Your task to perform on an android device: What's the weather going to be this weekend? Image 0: 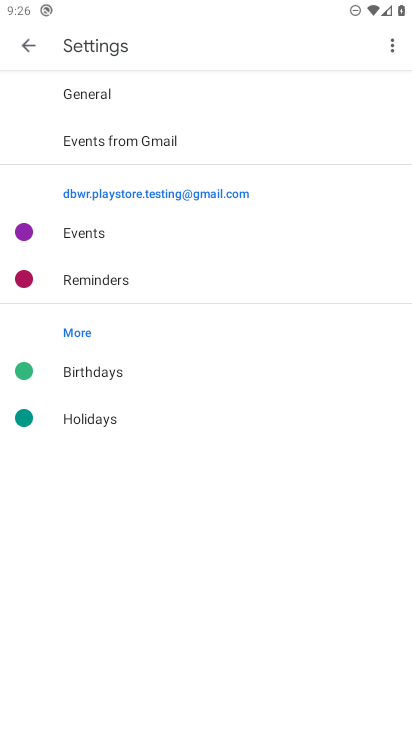
Step 0: press home button
Your task to perform on an android device: What's the weather going to be this weekend? Image 1: 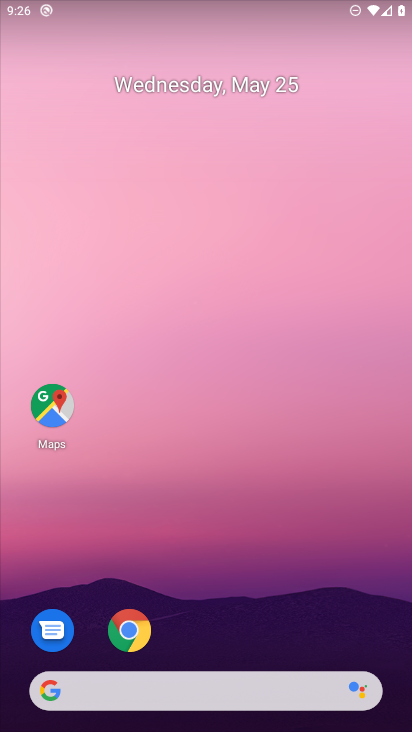
Step 1: drag from (211, 642) to (206, 425)
Your task to perform on an android device: What's the weather going to be this weekend? Image 2: 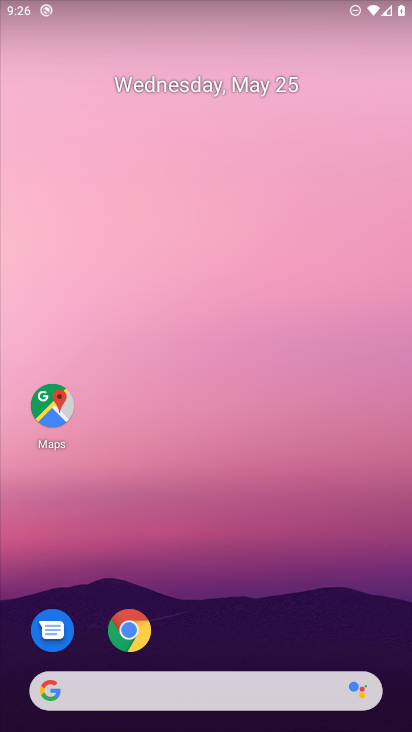
Step 2: drag from (186, 653) to (186, 452)
Your task to perform on an android device: What's the weather going to be this weekend? Image 3: 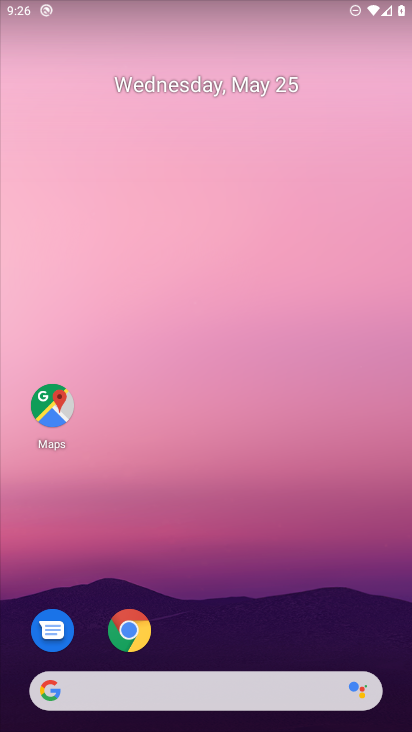
Step 3: drag from (180, 674) to (190, 342)
Your task to perform on an android device: What's the weather going to be this weekend? Image 4: 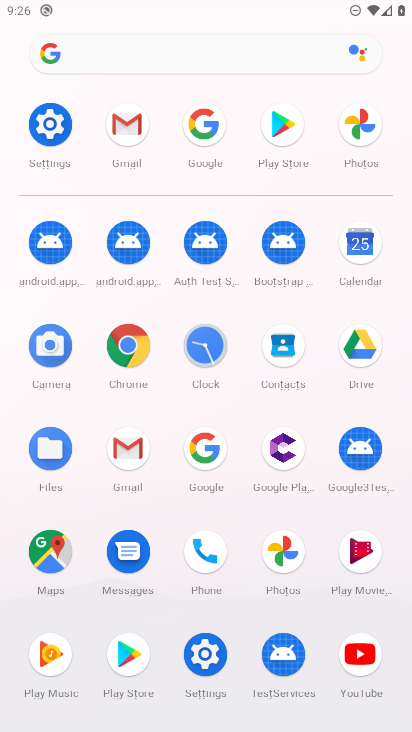
Step 4: click (213, 452)
Your task to perform on an android device: What's the weather going to be this weekend? Image 5: 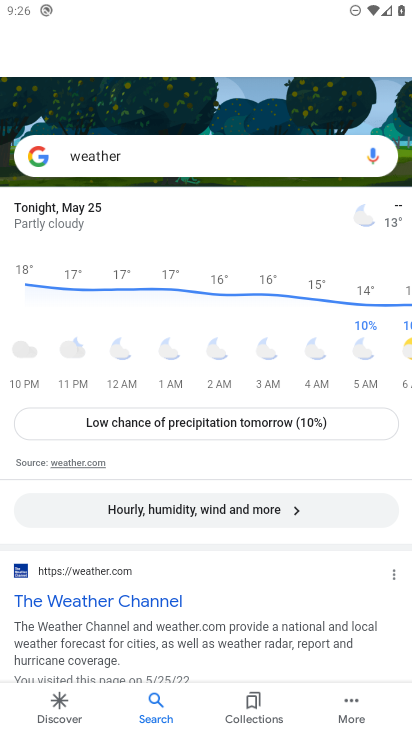
Step 5: click (128, 155)
Your task to perform on an android device: What's the weather going to be this weekend? Image 6: 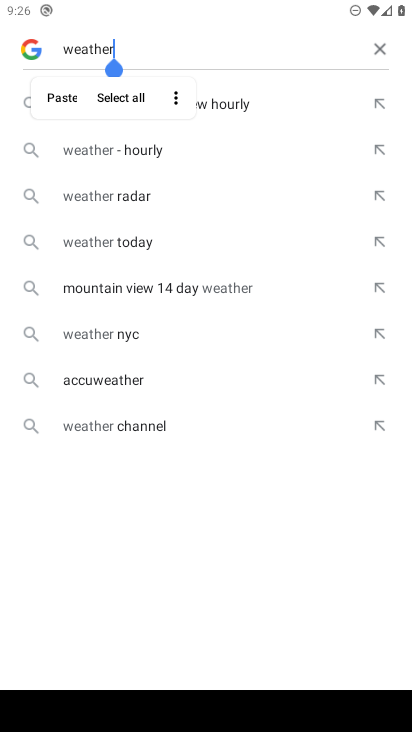
Step 6: click (371, 47)
Your task to perform on an android device: What's the weather going to be this weekend? Image 7: 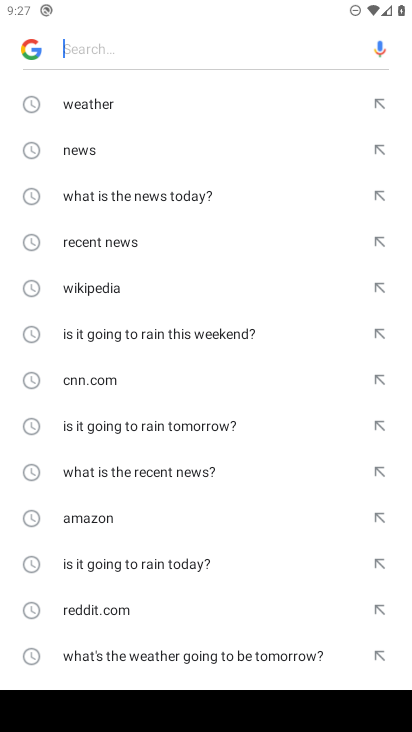
Step 7: drag from (174, 673) to (178, 372)
Your task to perform on an android device: What's the weather going to be this weekend? Image 8: 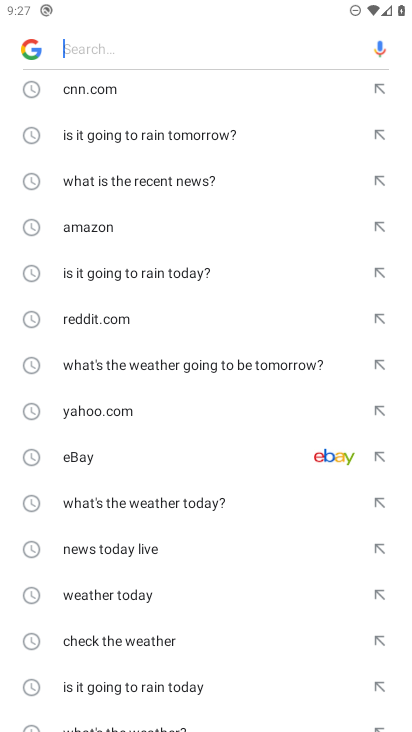
Step 8: drag from (152, 646) to (156, 403)
Your task to perform on an android device: What's the weather going to be this weekend? Image 9: 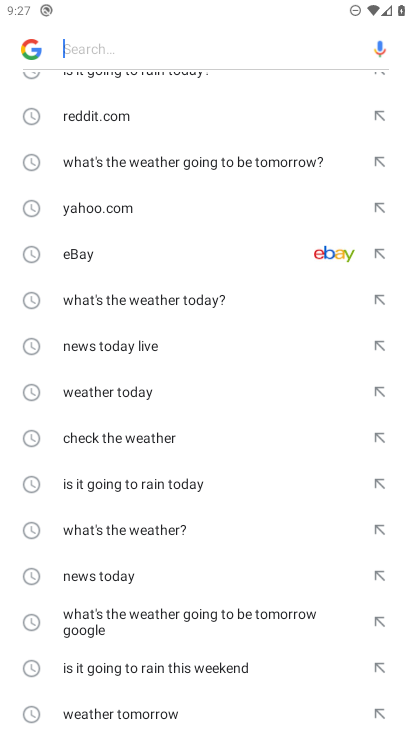
Step 9: drag from (166, 706) to (166, 414)
Your task to perform on an android device: What's the weather going to be this weekend? Image 10: 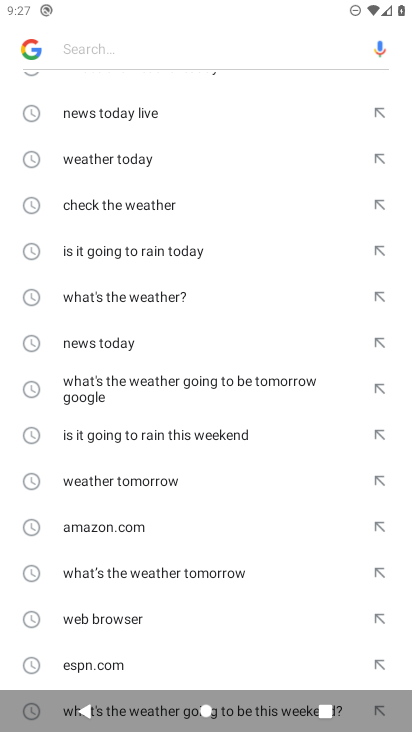
Step 10: drag from (188, 637) to (191, 416)
Your task to perform on an android device: What's the weather going to be this weekend? Image 11: 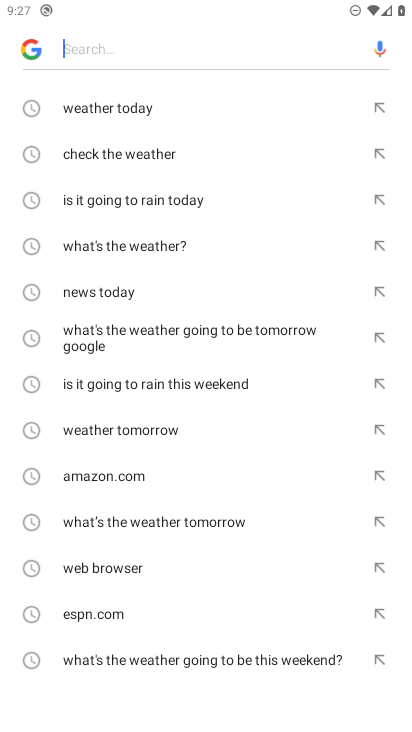
Step 11: click (213, 666)
Your task to perform on an android device: What's the weather going to be this weekend? Image 12: 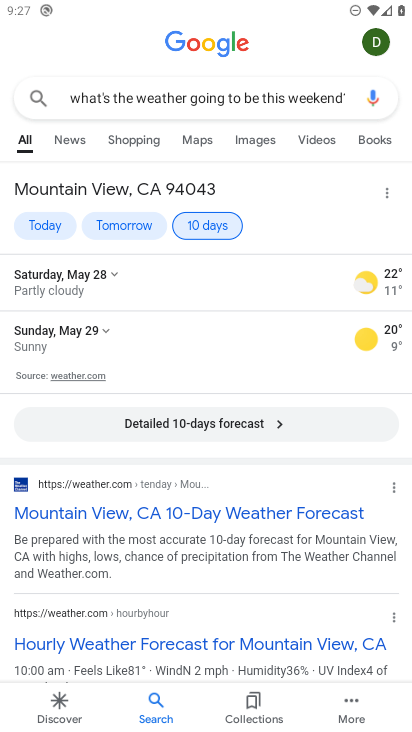
Step 12: click (201, 427)
Your task to perform on an android device: What's the weather going to be this weekend? Image 13: 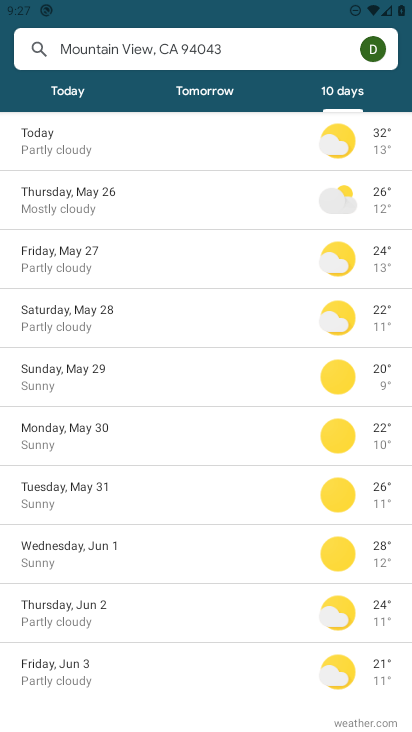
Step 13: task complete